Your task to perform on an android device: turn on data saver in the chrome app Image 0: 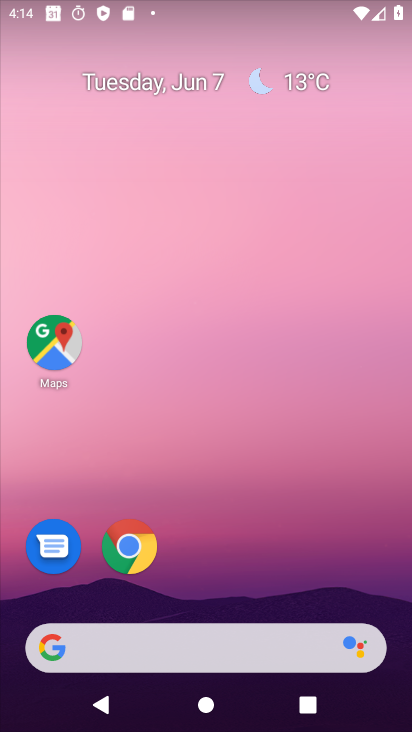
Step 0: click (118, 537)
Your task to perform on an android device: turn on data saver in the chrome app Image 1: 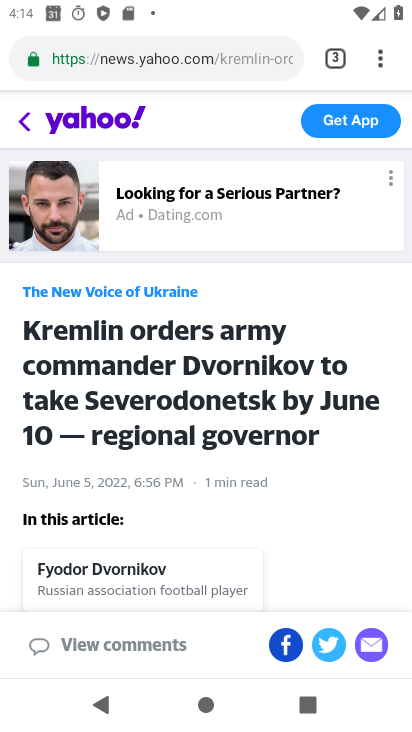
Step 1: click (375, 53)
Your task to perform on an android device: turn on data saver in the chrome app Image 2: 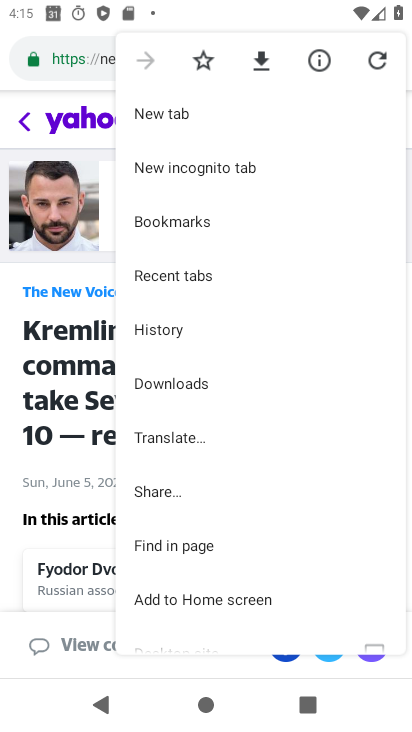
Step 2: drag from (170, 551) to (178, 135)
Your task to perform on an android device: turn on data saver in the chrome app Image 3: 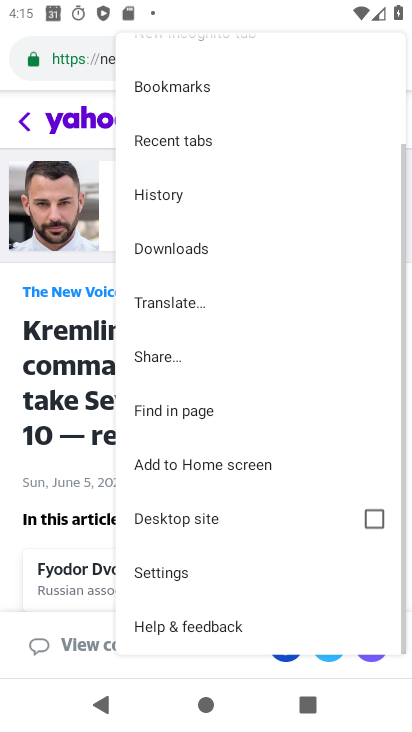
Step 3: click (147, 566)
Your task to perform on an android device: turn on data saver in the chrome app Image 4: 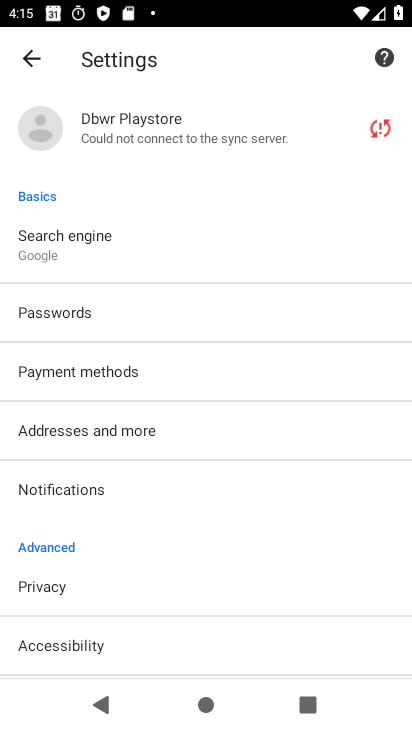
Step 4: drag from (147, 566) to (220, 131)
Your task to perform on an android device: turn on data saver in the chrome app Image 5: 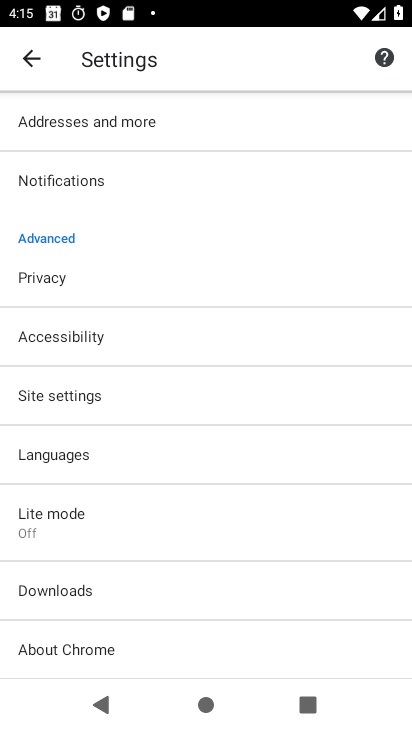
Step 5: click (101, 526)
Your task to perform on an android device: turn on data saver in the chrome app Image 6: 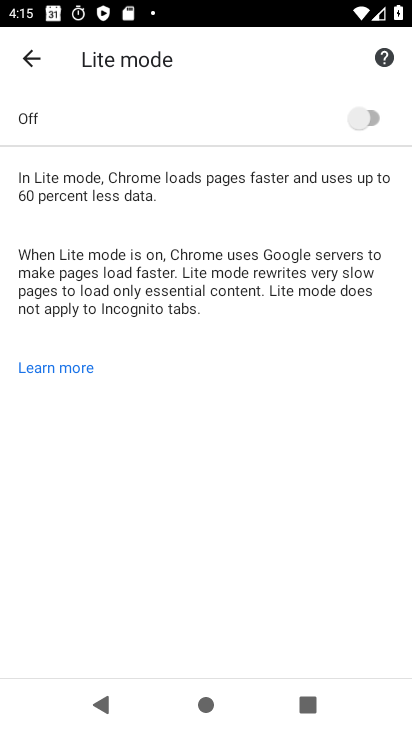
Step 6: click (368, 116)
Your task to perform on an android device: turn on data saver in the chrome app Image 7: 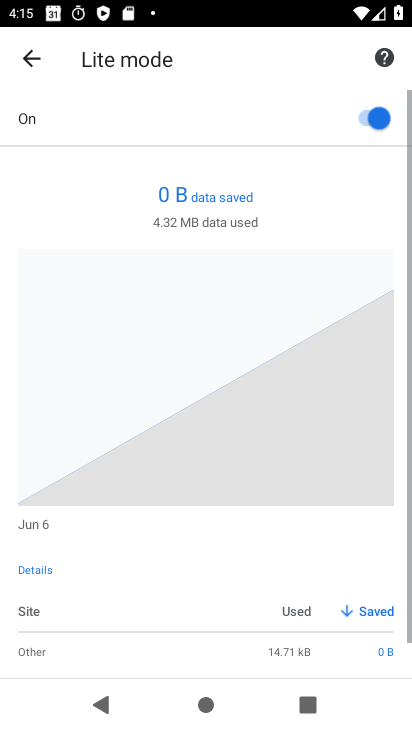
Step 7: task complete